Your task to perform on an android device: change the upload size in google photos Image 0: 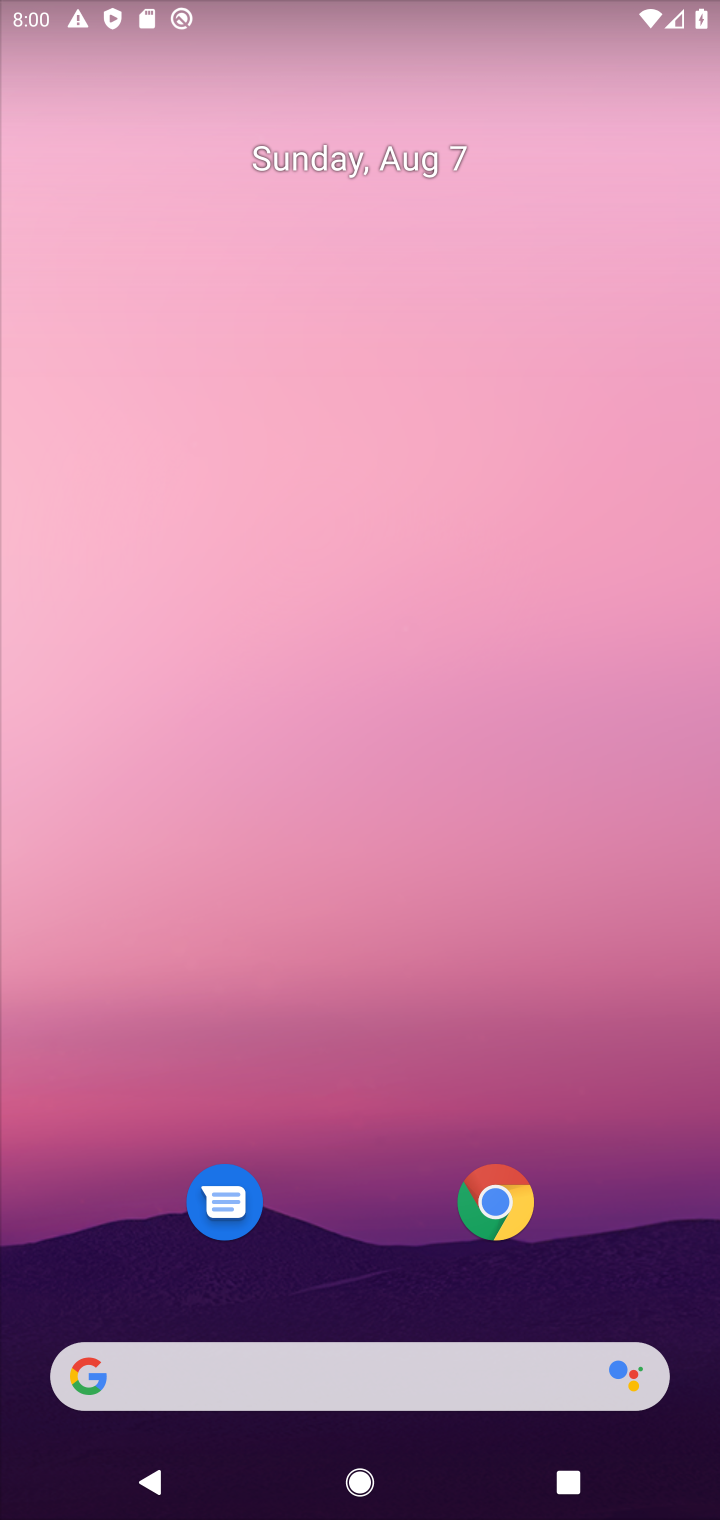
Step 0: drag from (491, 773) to (576, 159)
Your task to perform on an android device: change the upload size in google photos Image 1: 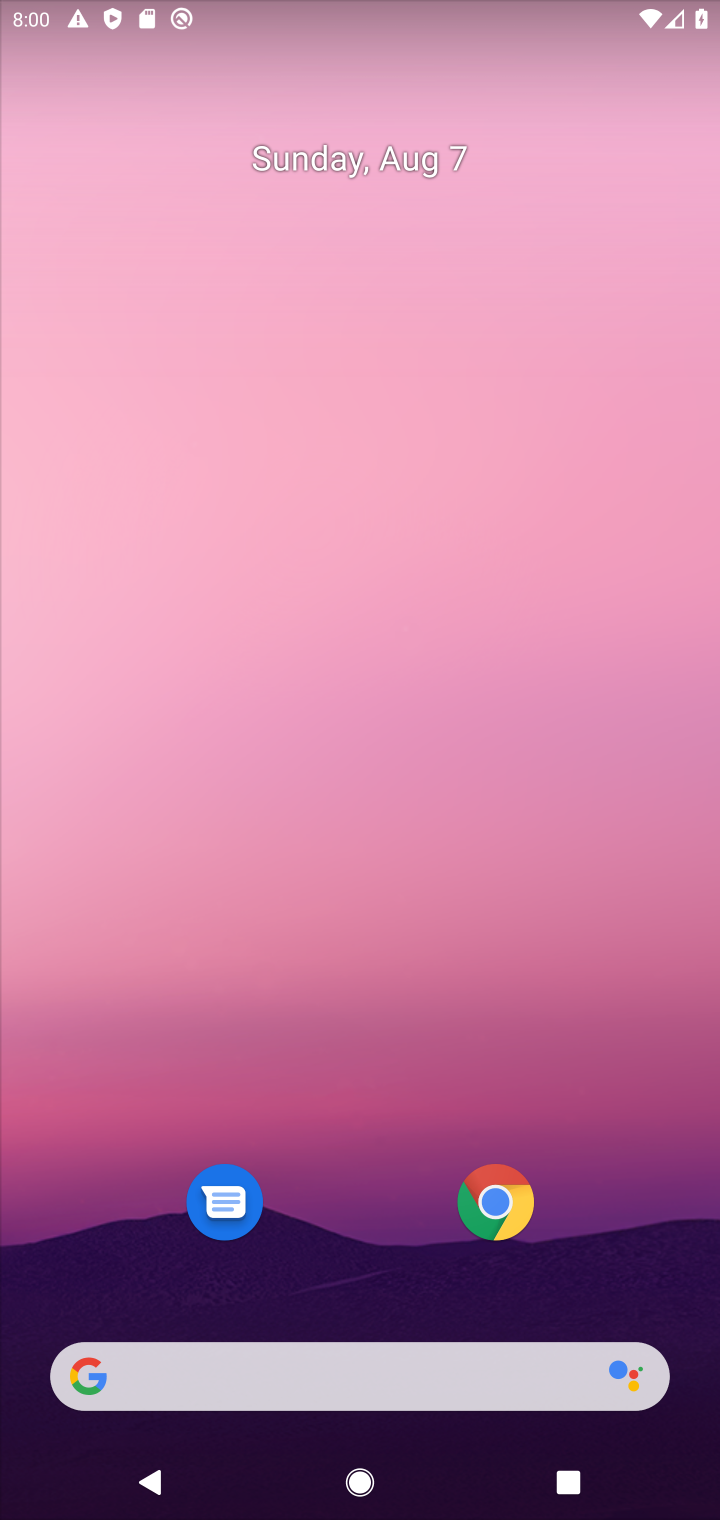
Step 1: drag from (411, 759) to (566, 137)
Your task to perform on an android device: change the upload size in google photos Image 2: 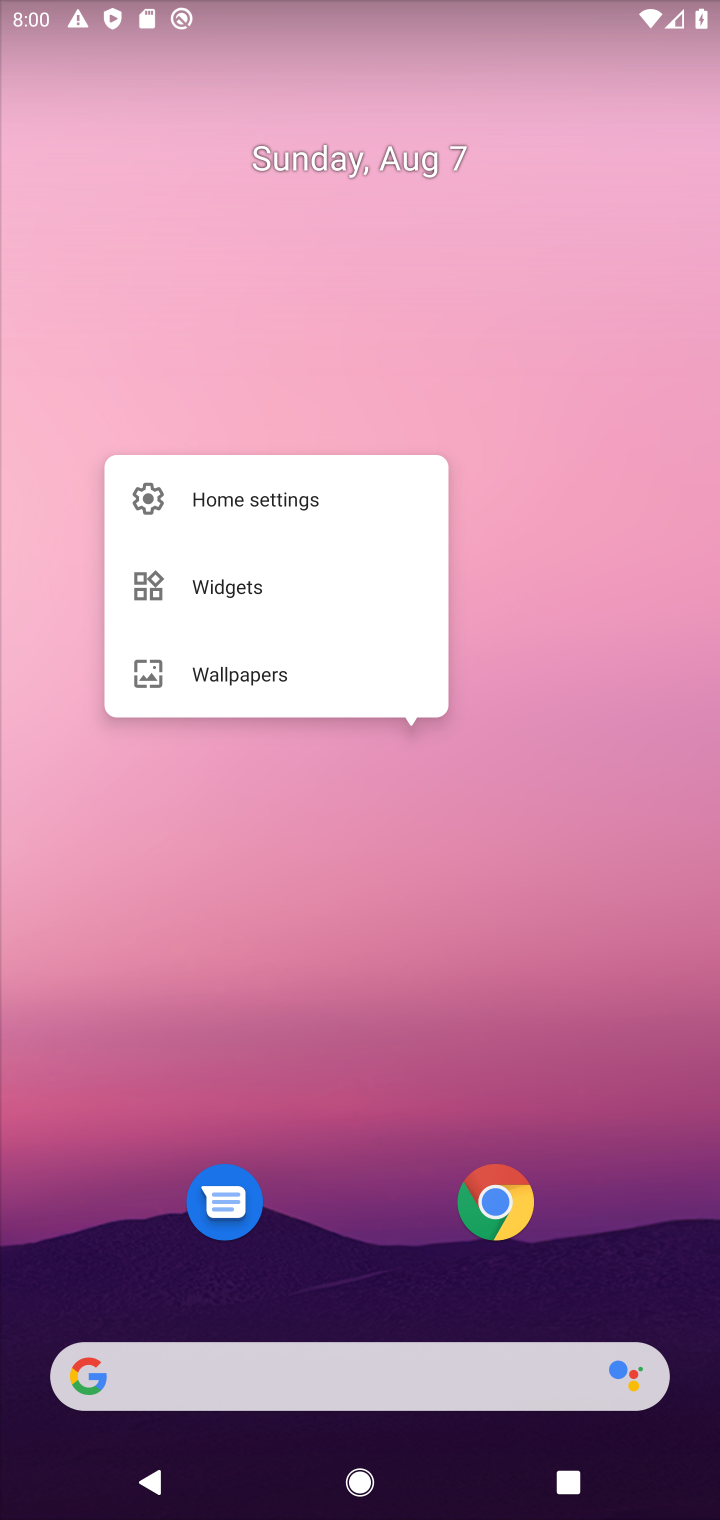
Step 2: drag from (495, 810) to (712, 278)
Your task to perform on an android device: change the upload size in google photos Image 3: 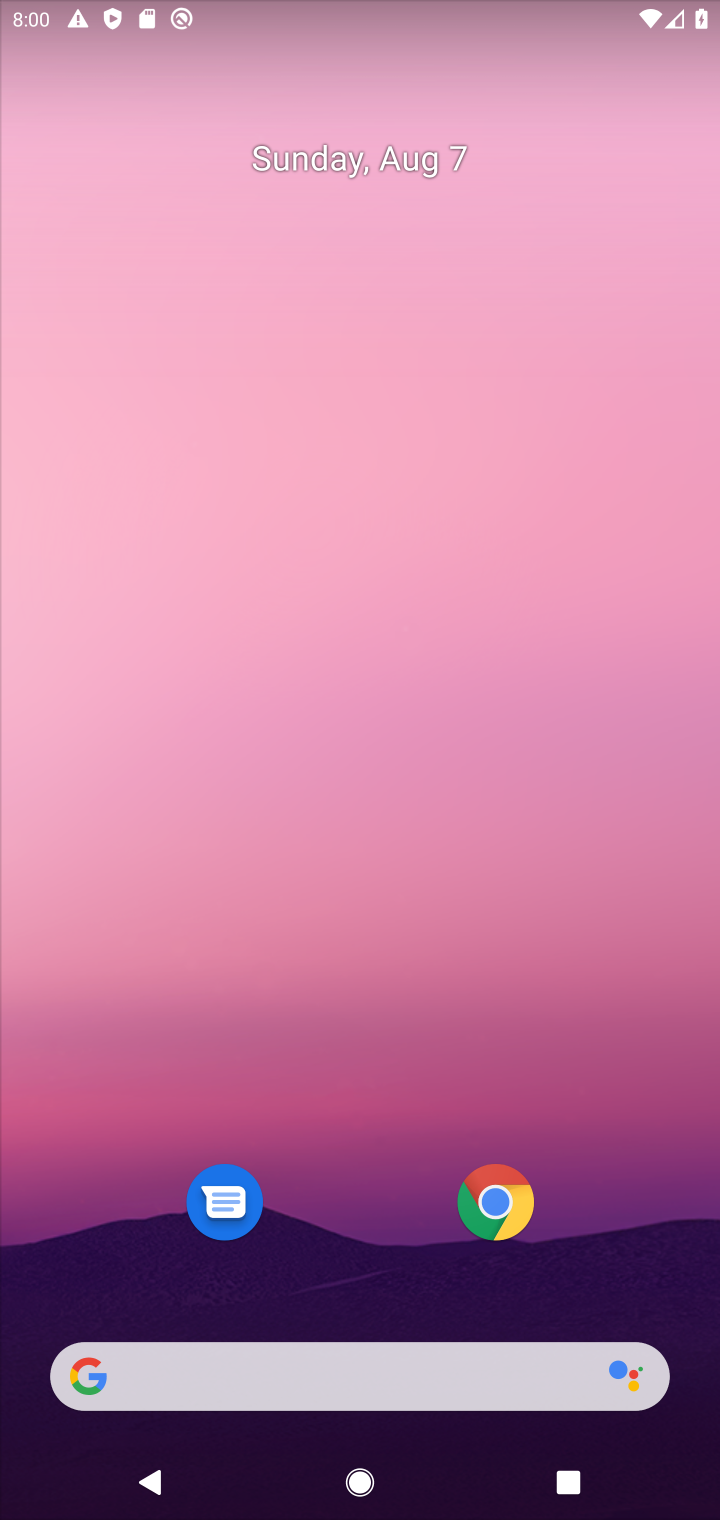
Step 3: drag from (327, 1165) to (585, 41)
Your task to perform on an android device: change the upload size in google photos Image 4: 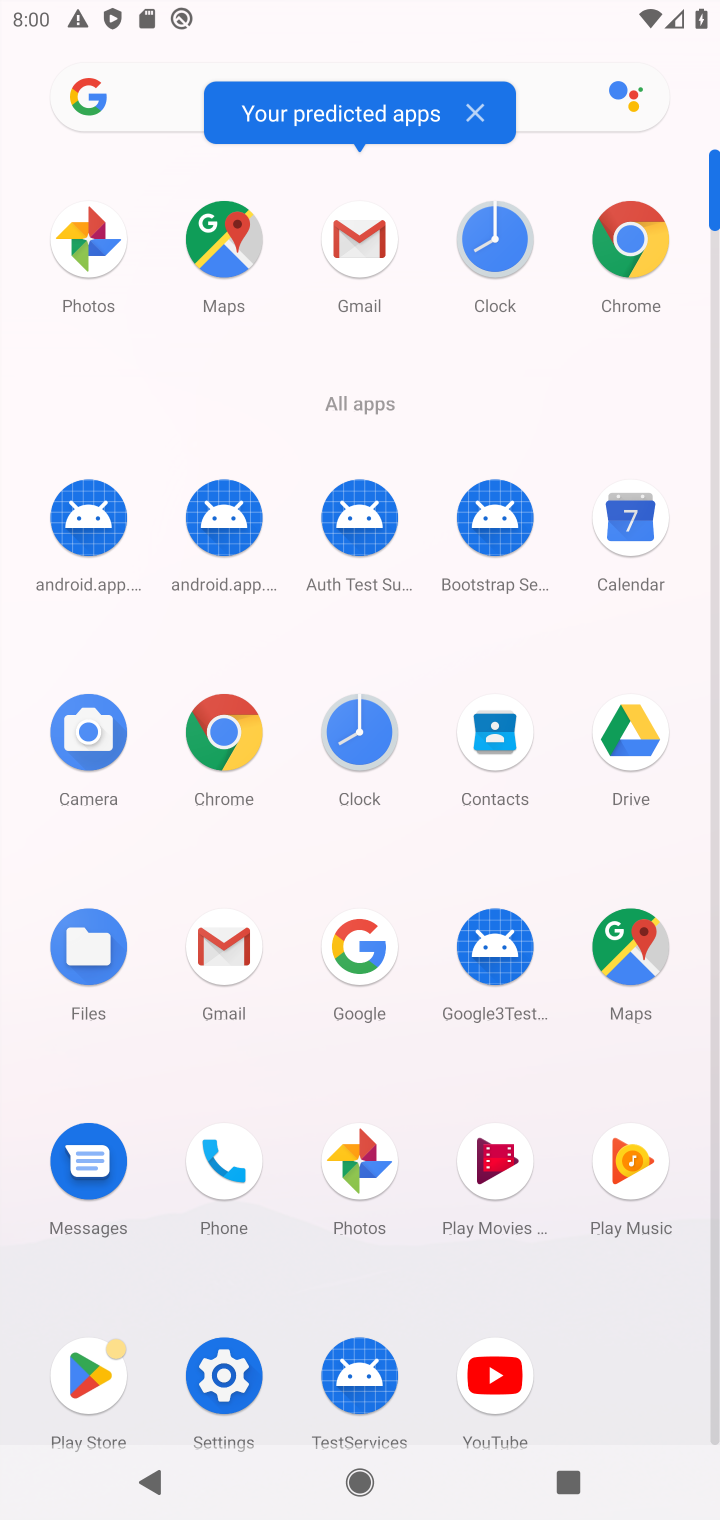
Step 4: click (362, 1167)
Your task to perform on an android device: change the upload size in google photos Image 5: 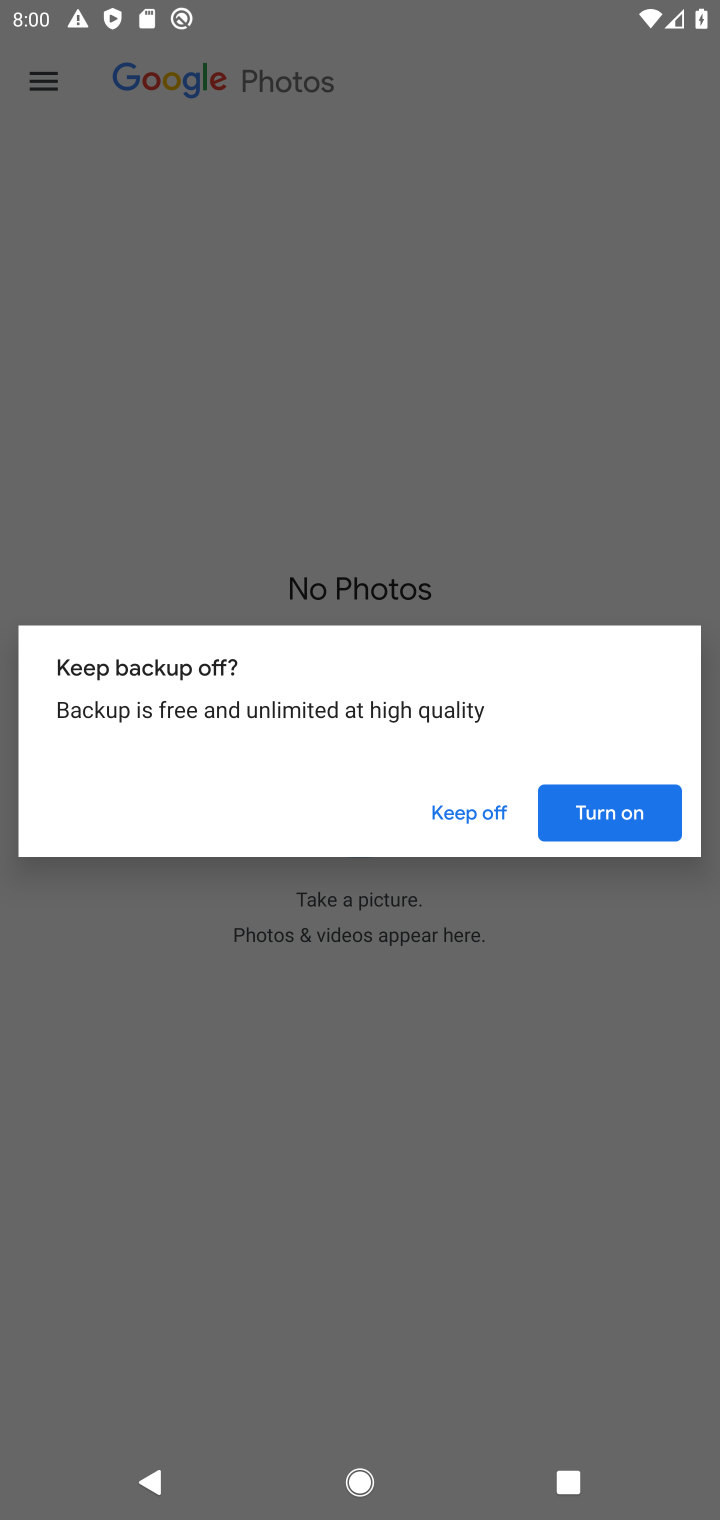
Step 5: click (462, 821)
Your task to perform on an android device: change the upload size in google photos Image 6: 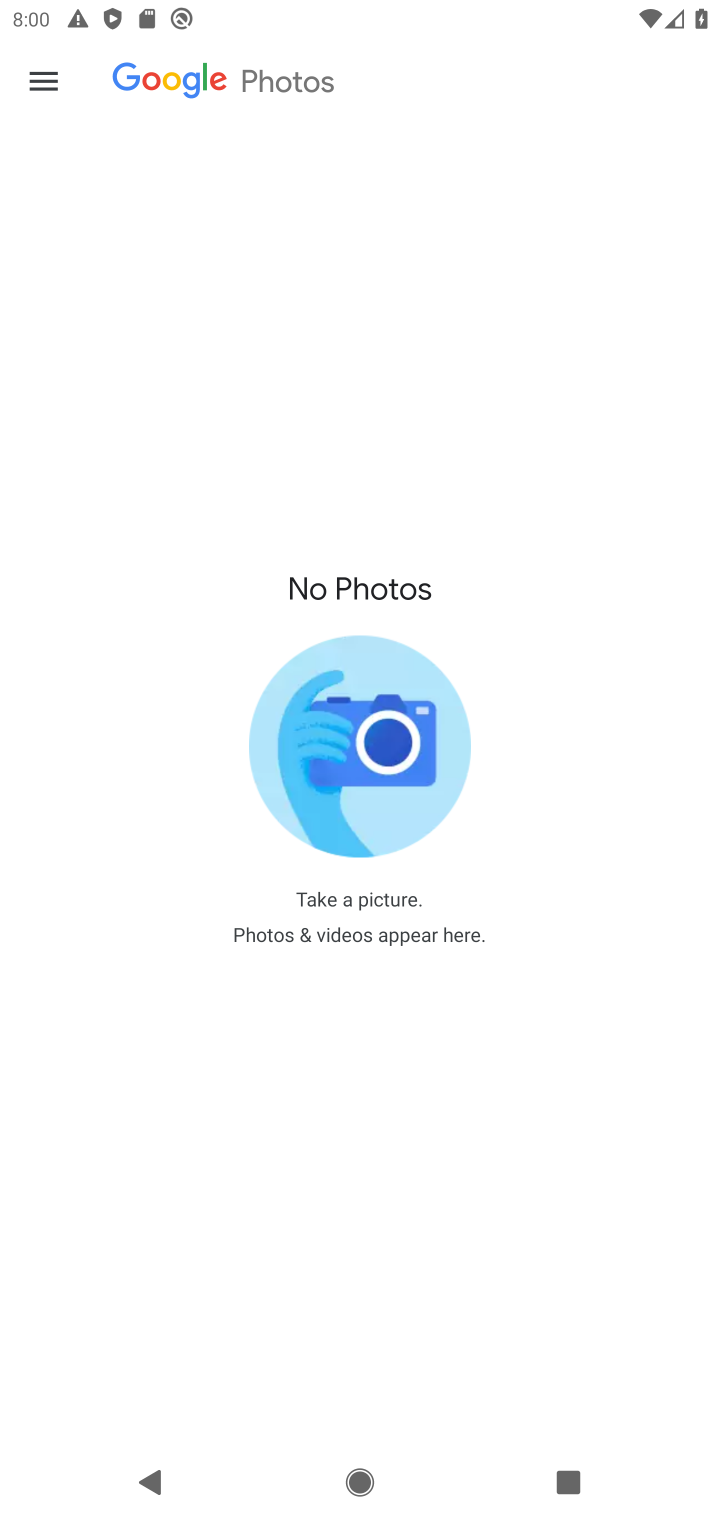
Step 6: click (37, 92)
Your task to perform on an android device: change the upload size in google photos Image 7: 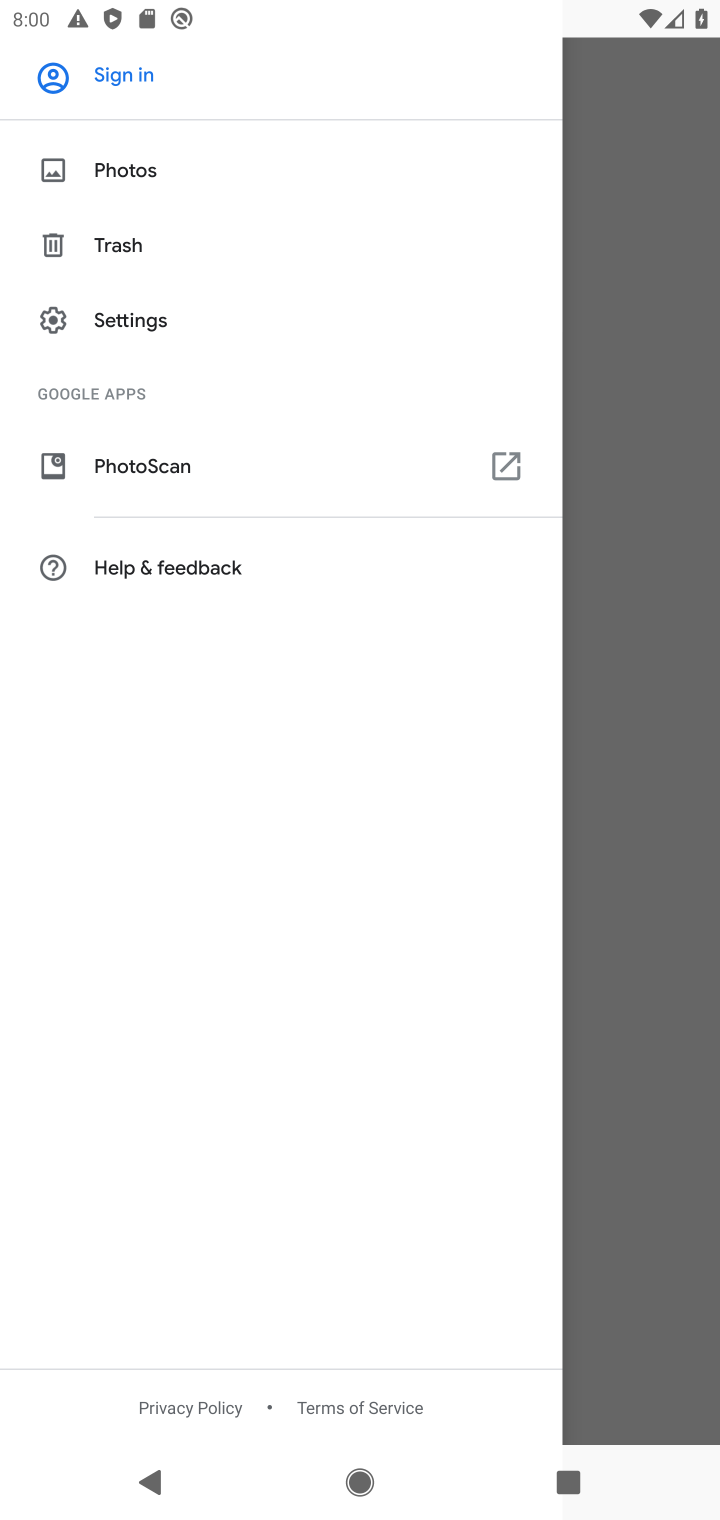
Step 7: click (162, 335)
Your task to perform on an android device: change the upload size in google photos Image 8: 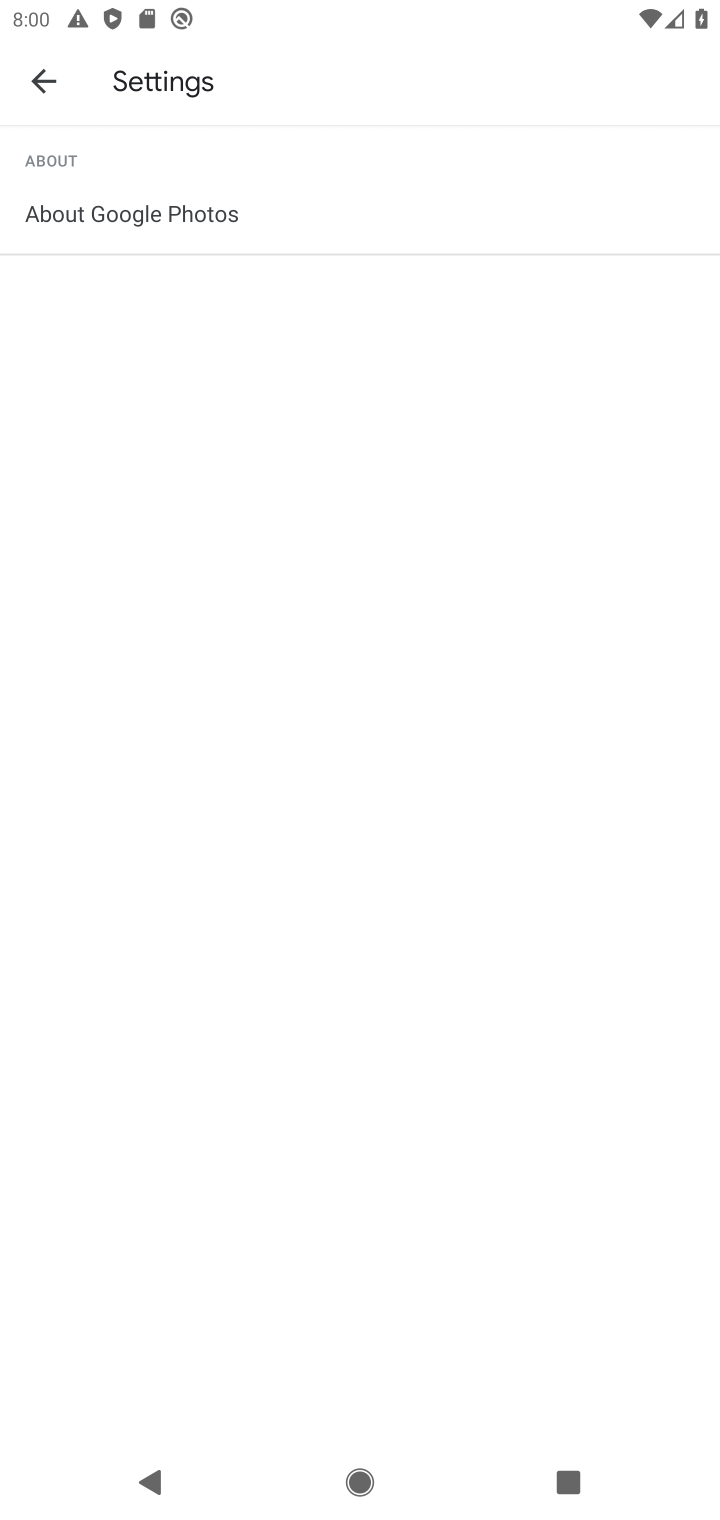
Step 8: click (33, 61)
Your task to perform on an android device: change the upload size in google photos Image 9: 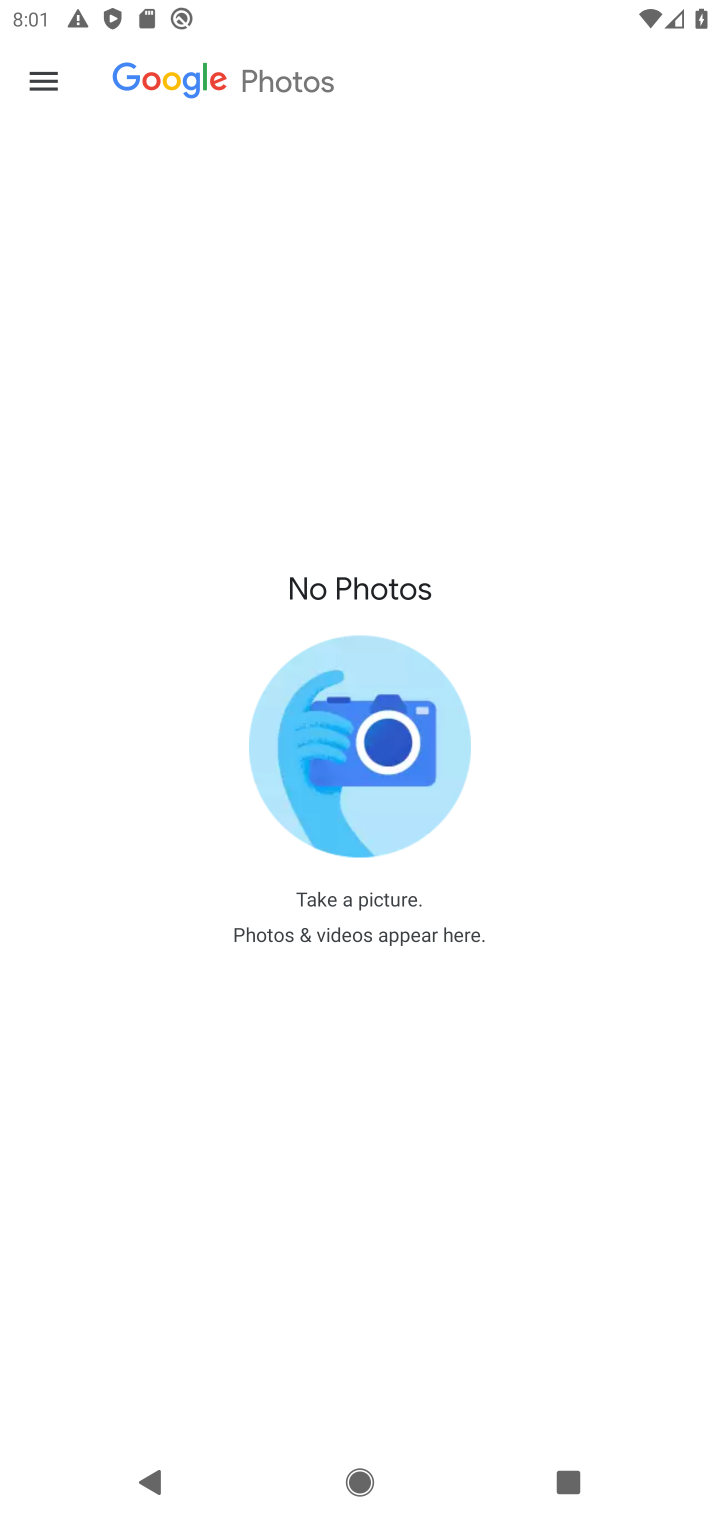
Step 9: click (55, 81)
Your task to perform on an android device: change the upload size in google photos Image 10: 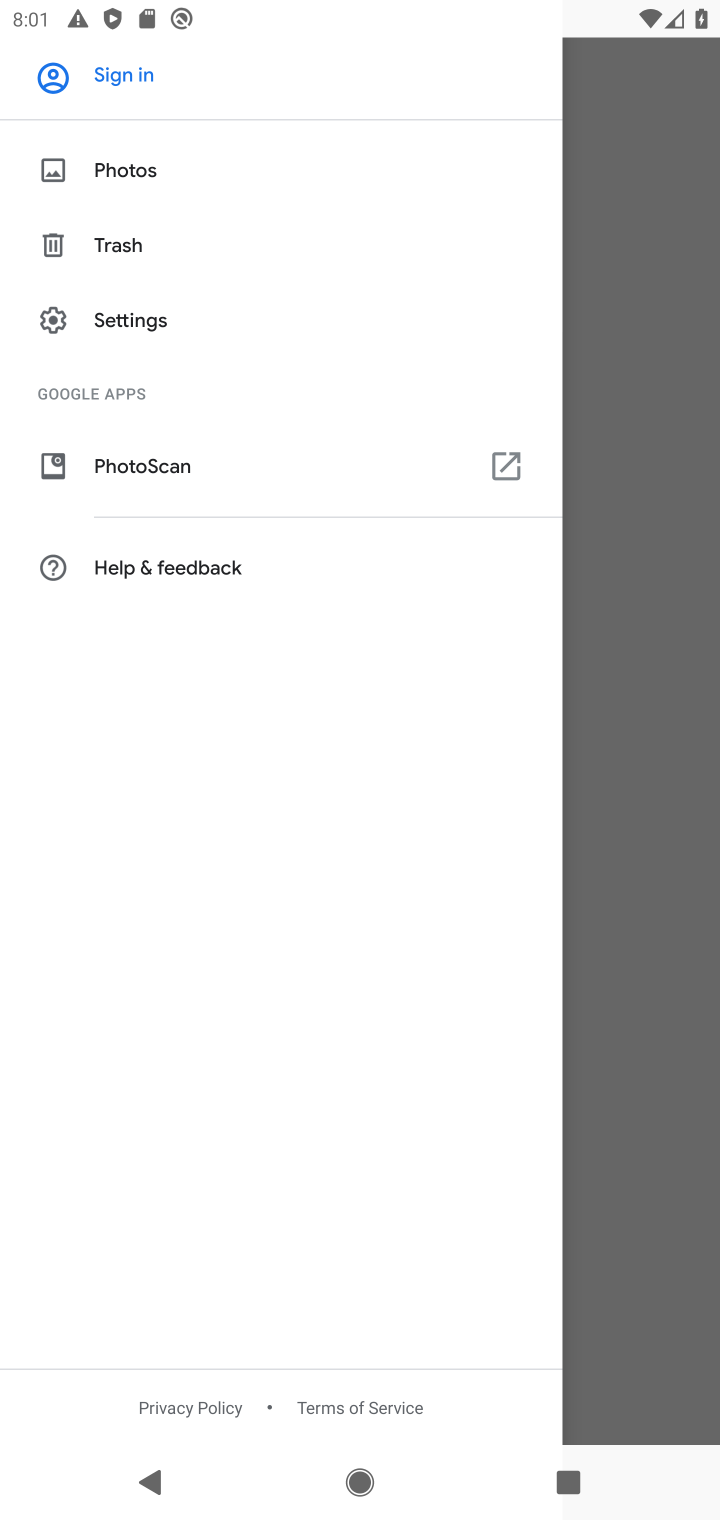
Step 10: click (152, 314)
Your task to perform on an android device: change the upload size in google photos Image 11: 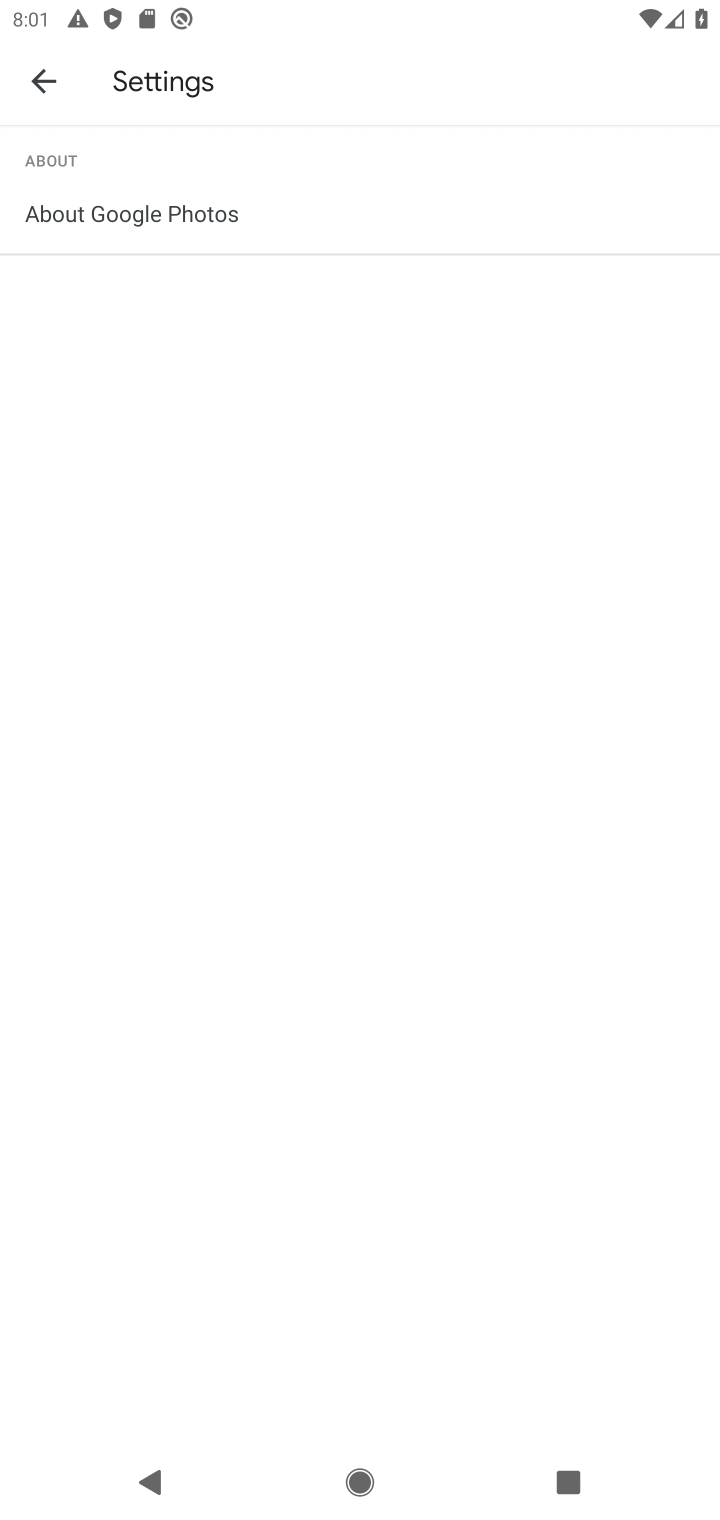
Step 11: task complete